Your task to perform on an android device: toggle translation in the chrome app Image 0: 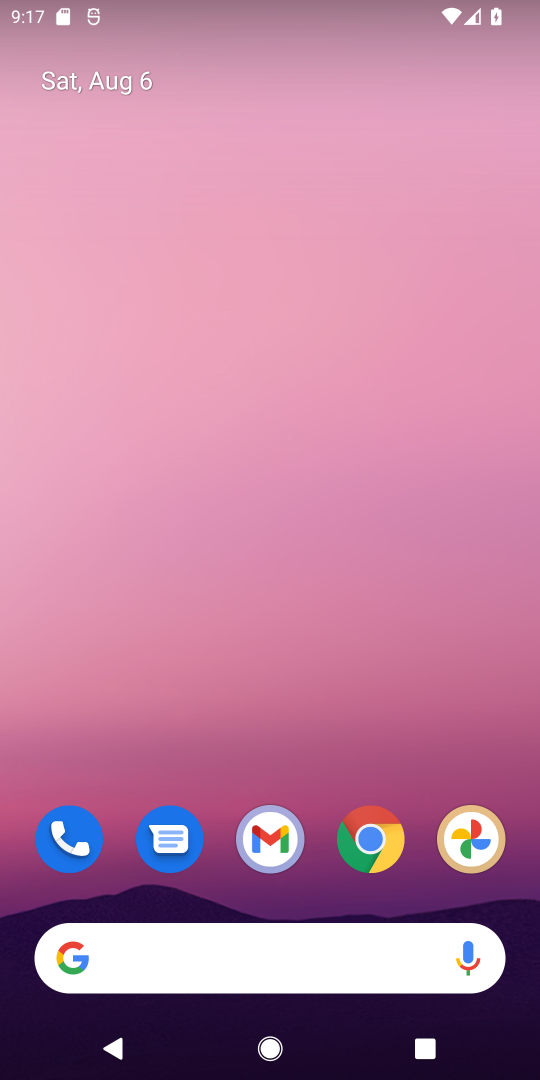
Step 0: click (365, 829)
Your task to perform on an android device: toggle translation in the chrome app Image 1: 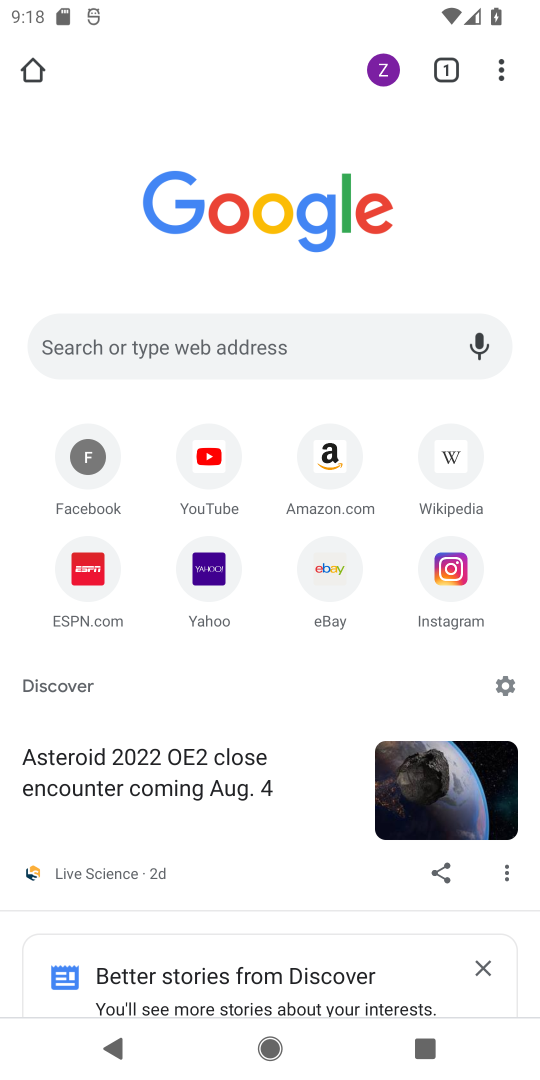
Step 1: click (494, 75)
Your task to perform on an android device: toggle translation in the chrome app Image 2: 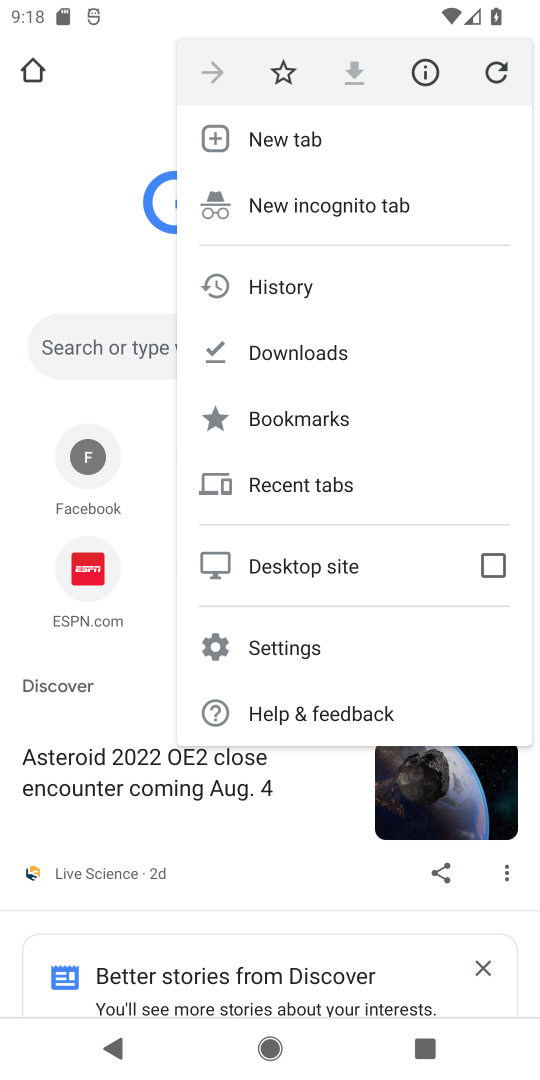
Step 2: click (322, 640)
Your task to perform on an android device: toggle translation in the chrome app Image 3: 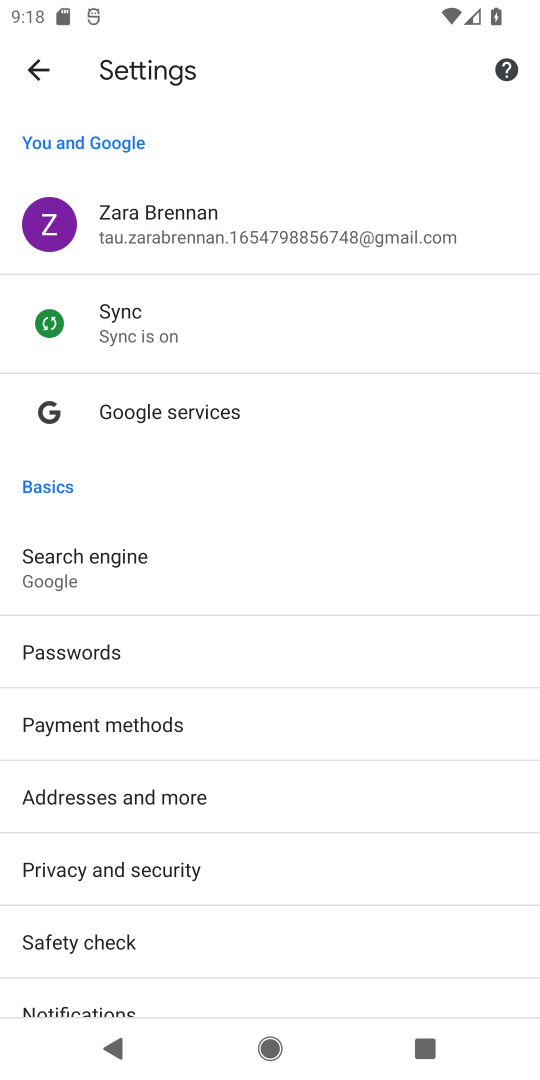
Step 3: drag from (197, 937) to (295, 325)
Your task to perform on an android device: toggle translation in the chrome app Image 4: 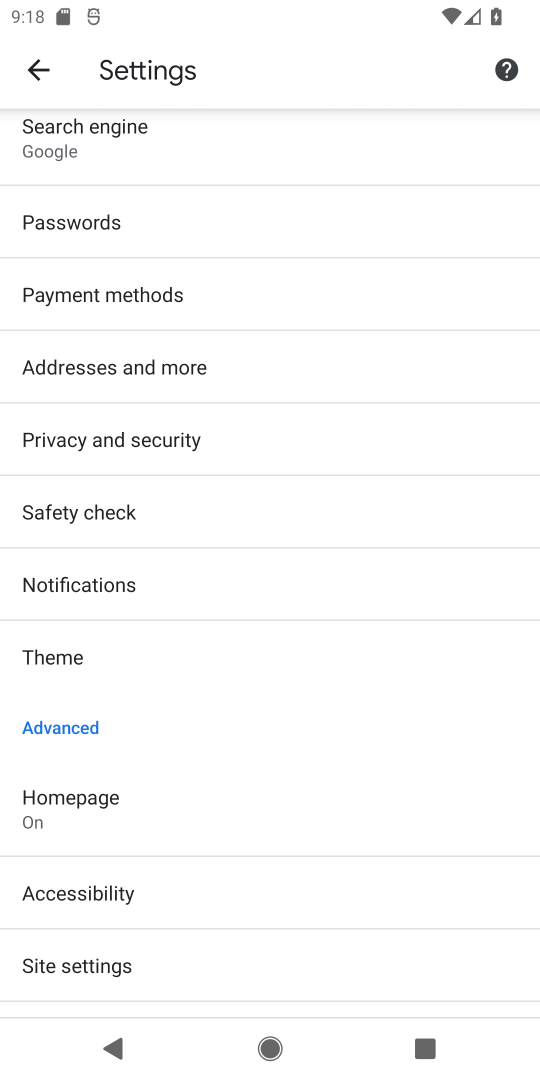
Step 4: drag from (170, 956) to (258, 417)
Your task to perform on an android device: toggle translation in the chrome app Image 5: 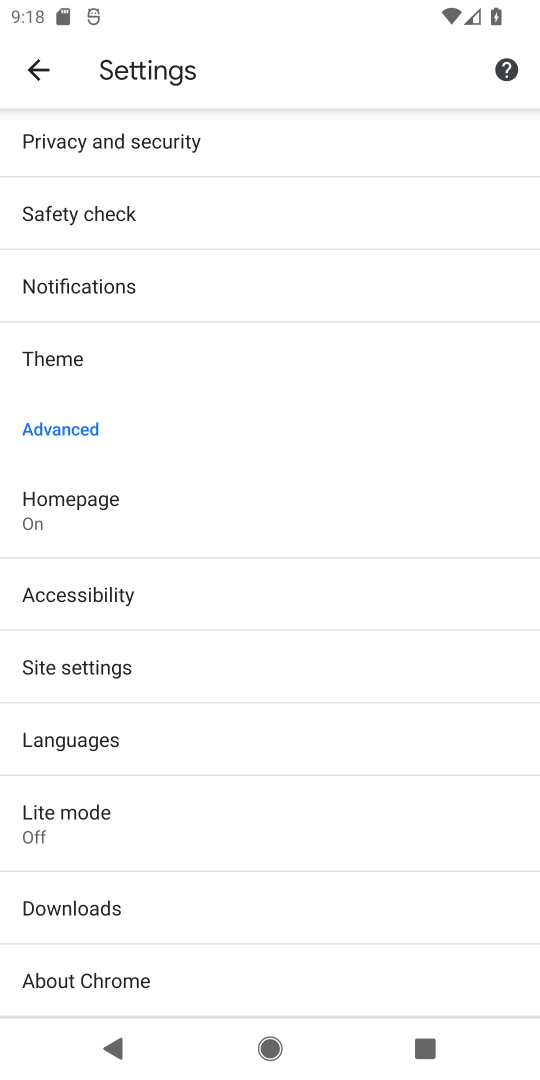
Step 5: click (145, 742)
Your task to perform on an android device: toggle translation in the chrome app Image 6: 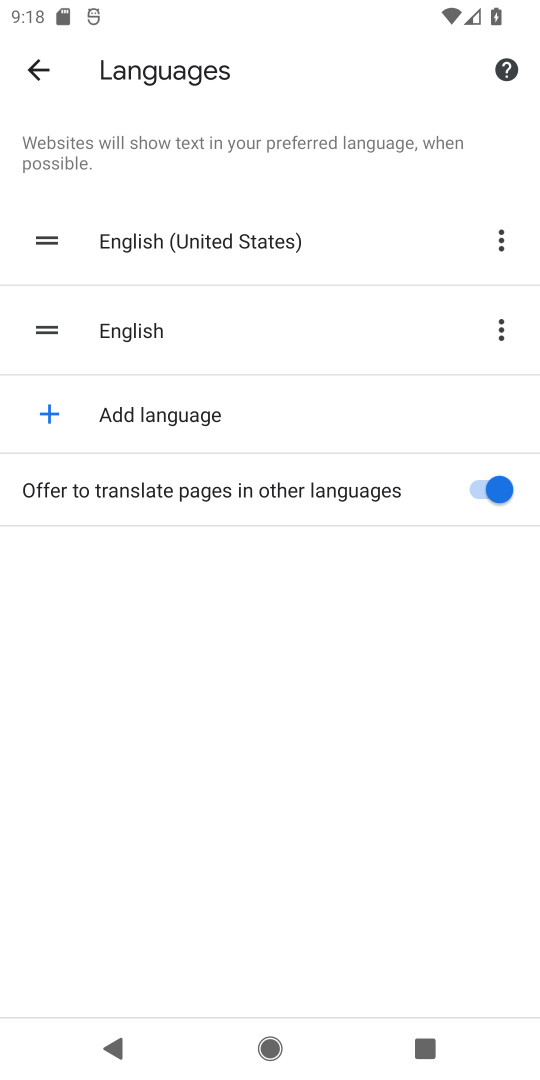
Step 6: click (484, 481)
Your task to perform on an android device: toggle translation in the chrome app Image 7: 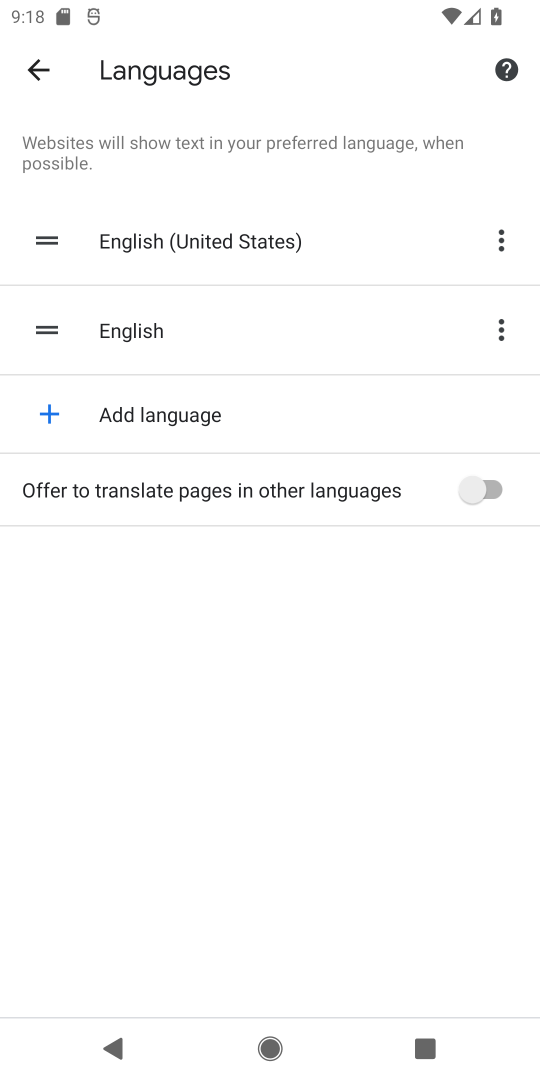
Step 7: task complete